Your task to perform on an android device: Go to ESPN.com Image 0: 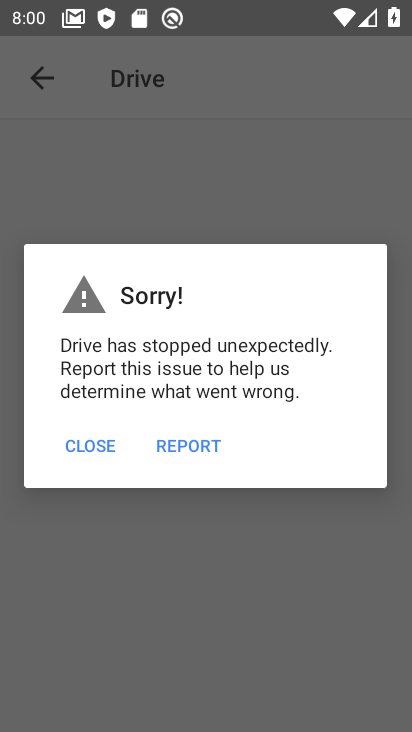
Step 0: click (91, 449)
Your task to perform on an android device: Go to ESPN.com Image 1: 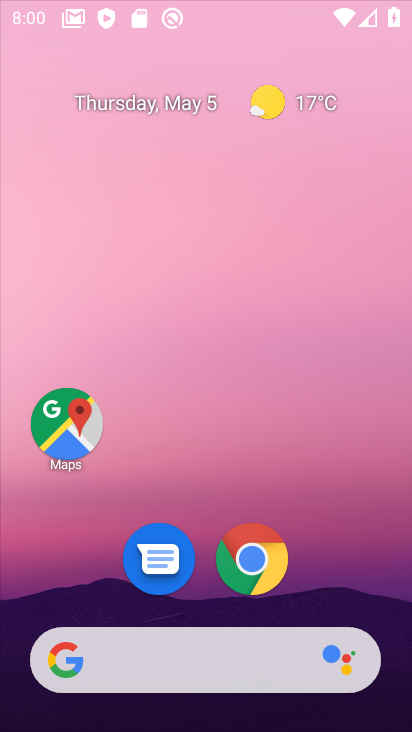
Step 1: press home button
Your task to perform on an android device: Go to ESPN.com Image 2: 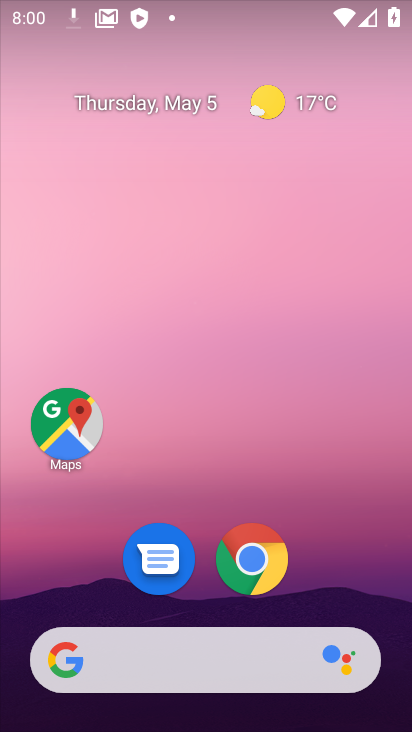
Step 2: click (256, 562)
Your task to perform on an android device: Go to ESPN.com Image 3: 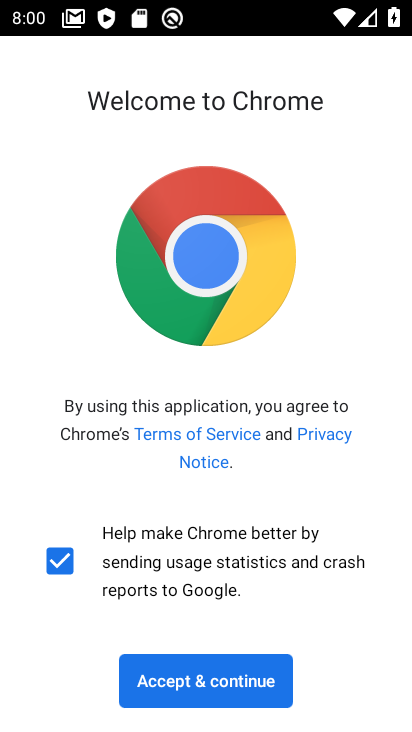
Step 3: click (201, 691)
Your task to perform on an android device: Go to ESPN.com Image 4: 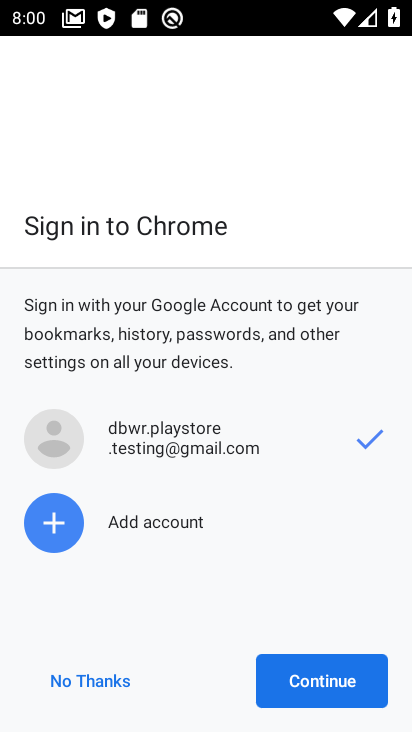
Step 4: click (95, 682)
Your task to perform on an android device: Go to ESPN.com Image 5: 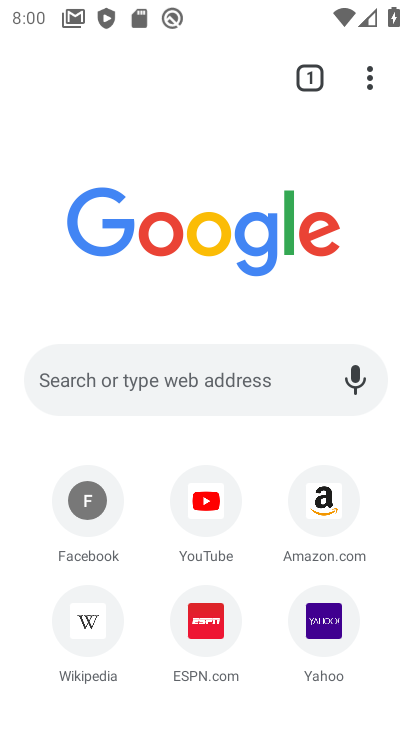
Step 5: click (115, 375)
Your task to perform on an android device: Go to ESPN.com Image 6: 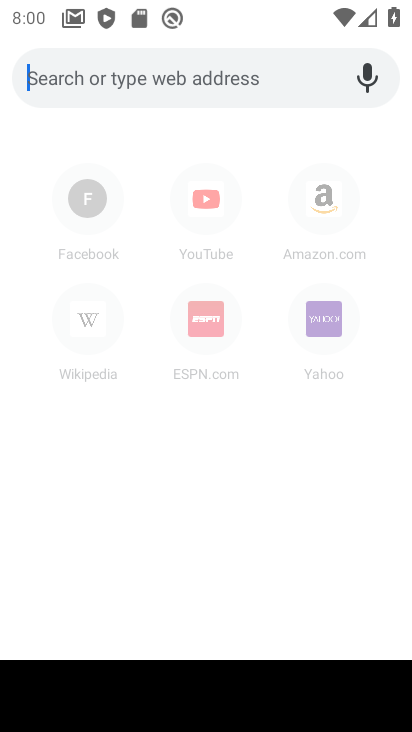
Step 6: click (212, 332)
Your task to perform on an android device: Go to ESPN.com Image 7: 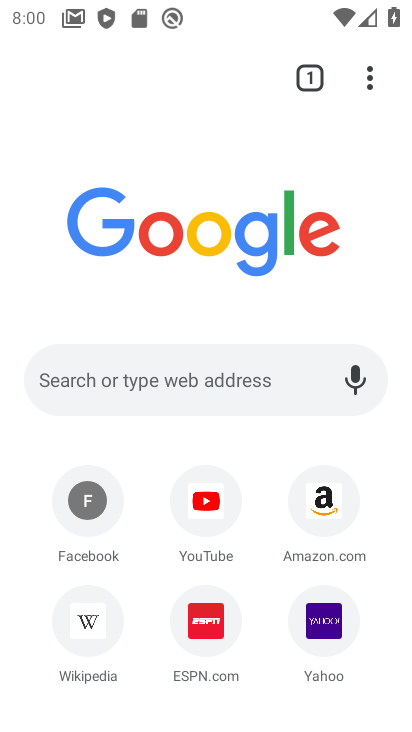
Step 7: click (212, 616)
Your task to perform on an android device: Go to ESPN.com Image 8: 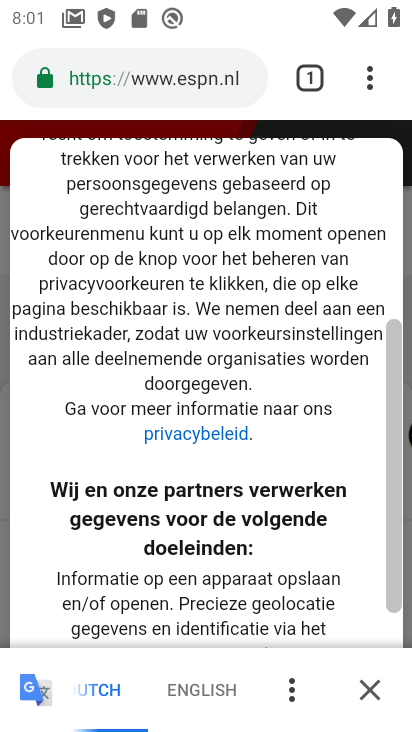
Step 8: task complete